Your task to perform on an android device: turn vacation reply on in the gmail app Image 0: 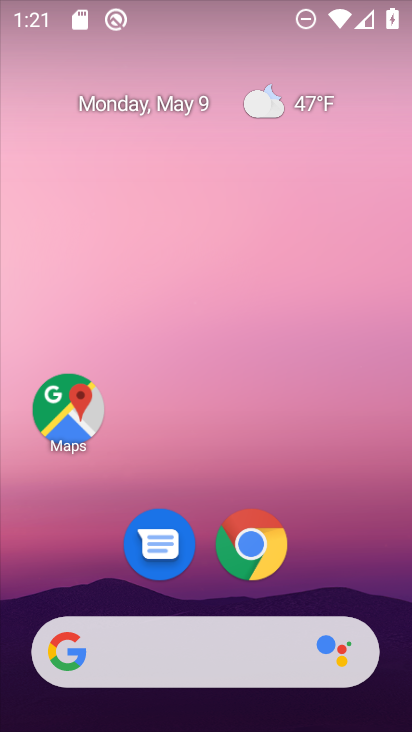
Step 0: drag from (354, 542) to (336, 109)
Your task to perform on an android device: turn vacation reply on in the gmail app Image 1: 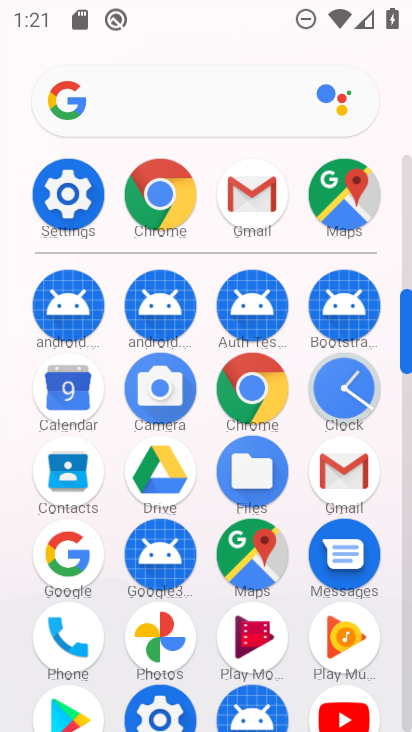
Step 1: click (256, 210)
Your task to perform on an android device: turn vacation reply on in the gmail app Image 2: 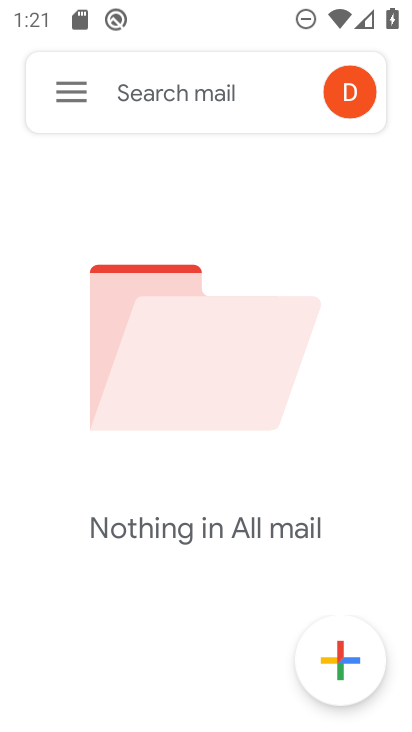
Step 2: click (56, 89)
Your task to perform on an android device: turn vacation reply on in the gmail app Image 3: 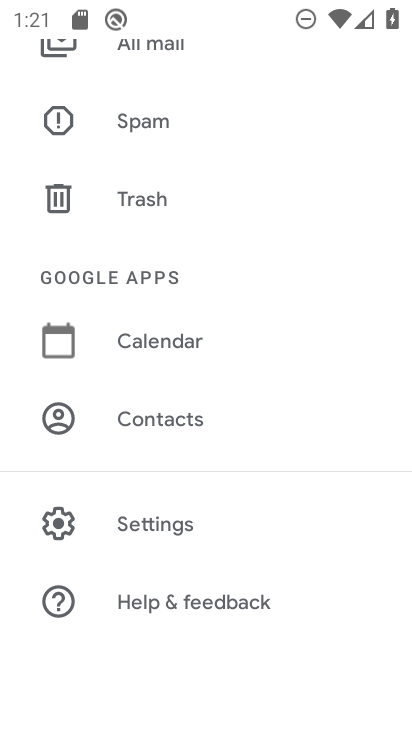
Step 3: click (152, 510)
Your task to perform on an android device: turn vacation reply on in the gmail app Image 4: 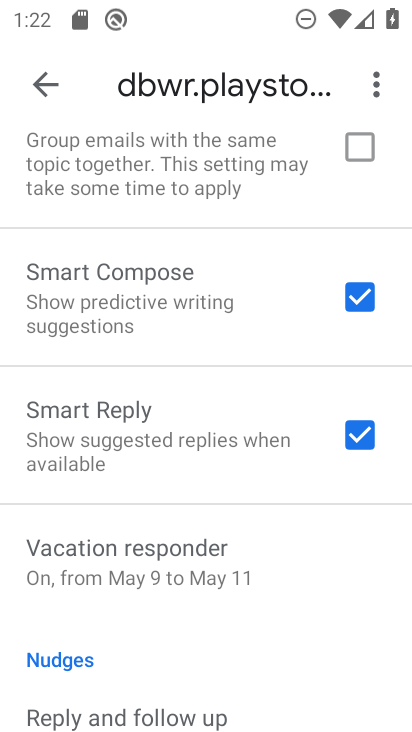
Step 4: drag from (140, 652) to (102, 233)
Your task to perform on an android device: turn vacation reply on in the gmail app Image 5: 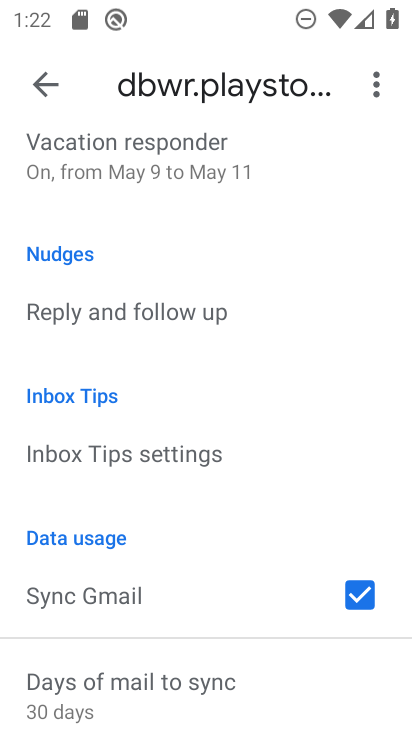
Step 5: drag from (106, 664) to (159, 477)
Your task to perform on an android device: turn vacation reply on in the gmail app Image 6: 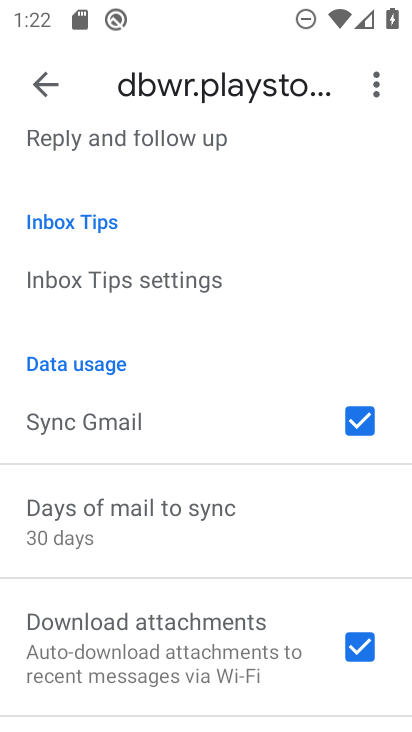
Step 6: drag from (168, 293) to (153, 639)
Your task to perform on an android device: turn vacation reply on in the gmail app Image 7: 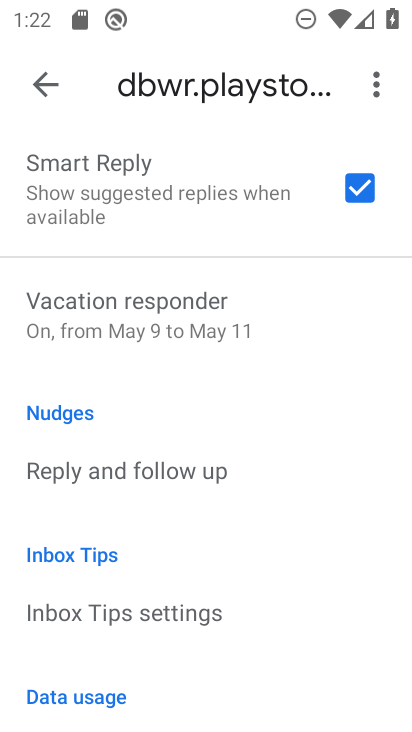
Step 7: drag from (198, 294) to (181, 504)
Your task to perform on an android device: turn vacation reply on in the gmail app Image 8: 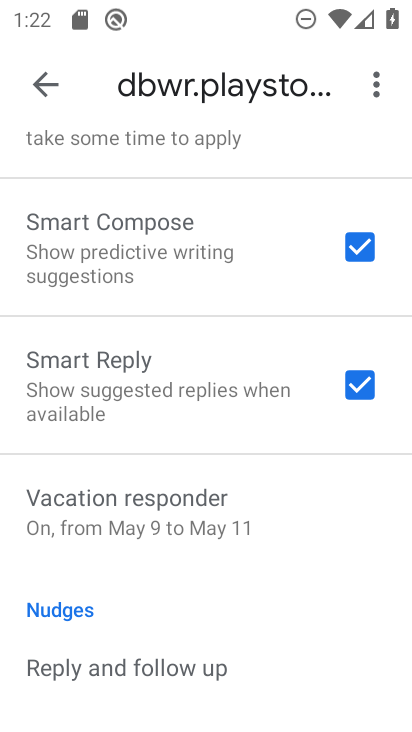
Step 8: click (142, 523)
Your task to perform on an android device: turn vacation reply on in the gmail app Image 9: 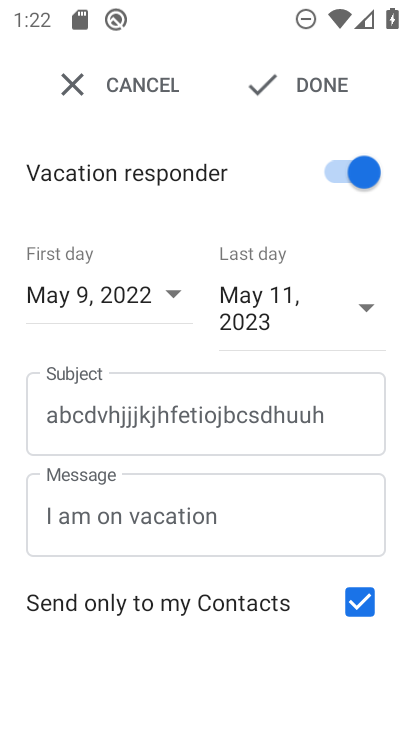
Step 9: task complete